Your task to perform on an android device: change the clock display to analog Image 0: 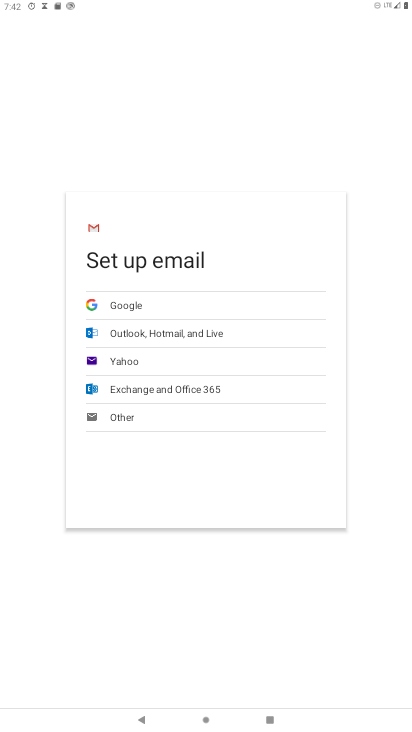
Step 0: press home button
Your task to perform on an android device: change the clock display to analog Image 1: 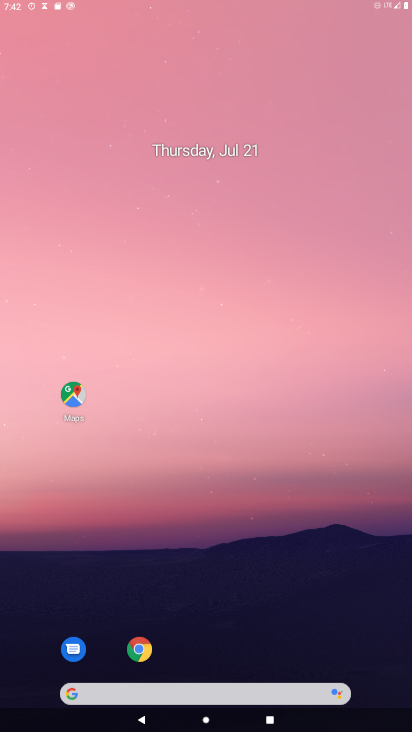
Step 1: drag from (401, 666) to (208, 53)
Your task to perform on an android device: change the clock display to analog Image 2: 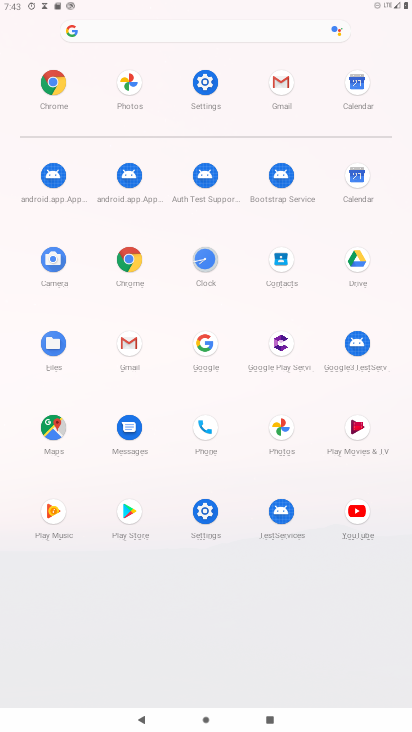
Step 2: click (202, 272)
Your task to perform on an android device: change the clock display to analog Image 3: 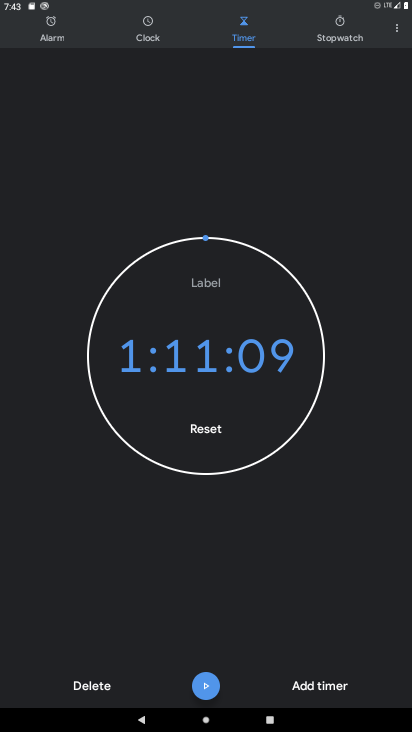
Step 3: click (395, 33)
Your task to perform on an android device: change the clock display to analog Image 4: 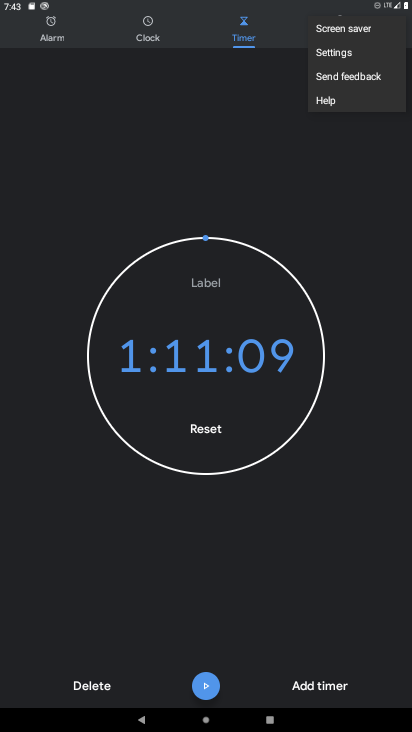
Step 4: click (327, 53)
Your task to perform on an android device: change the clock display to analog Image 5: 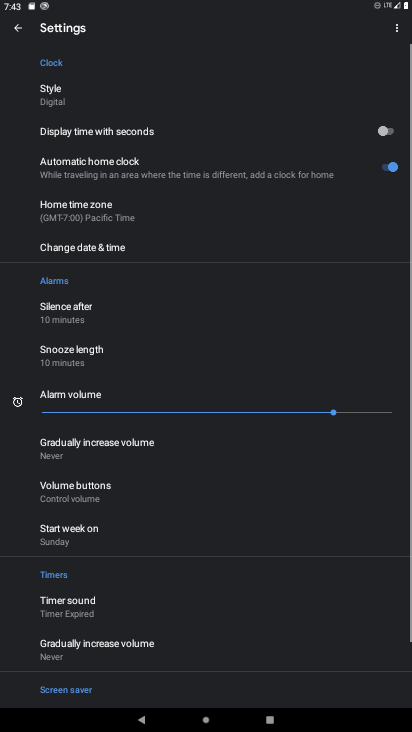
Step 5: click (63, 97)
Your task to perform on an android device: change the clock display to analog Image 6: 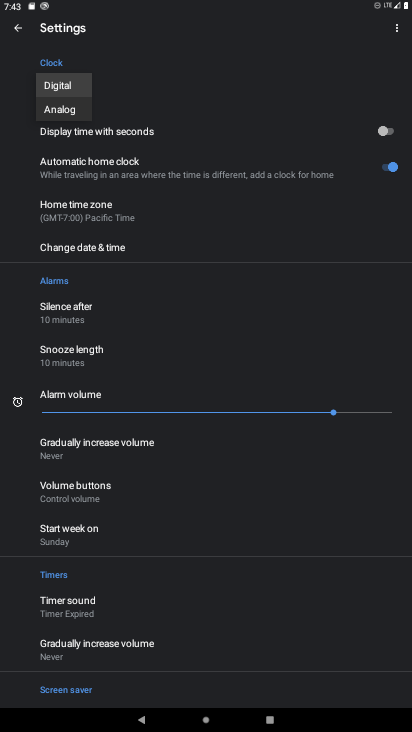
Step 6: click (66, 111)
Your task to perform on an android device: change the clock display to analog Image 7: 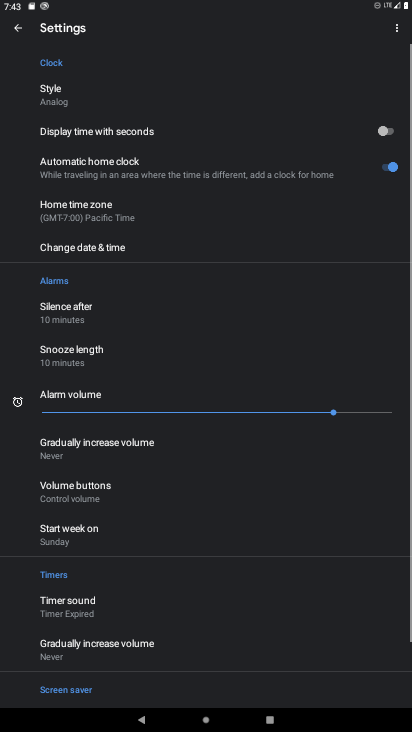
Step 7: task complete